Your task to perform on an android device: Open Android settings Image 0: 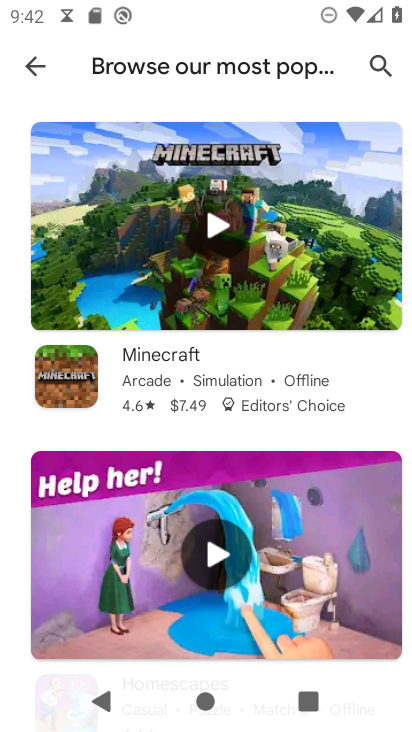
Step 0: press home button
Your task to perform on an android device: Open Android settings Image 1: 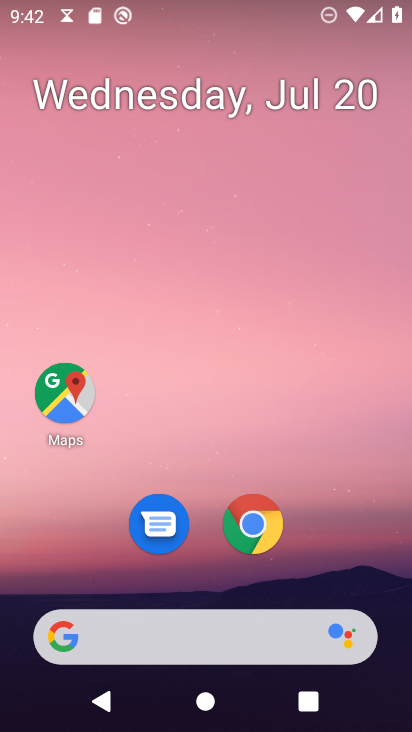
Step 1: drag from (183, 630) to (345, 55)
Your task to perform on an android device: Open Android settings Image 2: 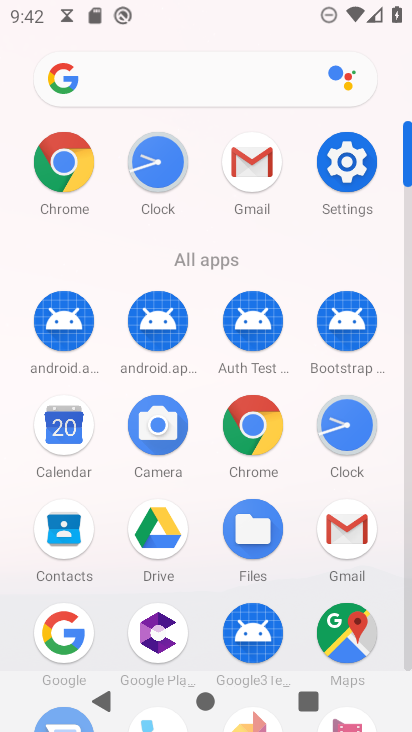
Step 2: click (343, 167)
Your task to perform on an android device: Open Android settings Image 3: 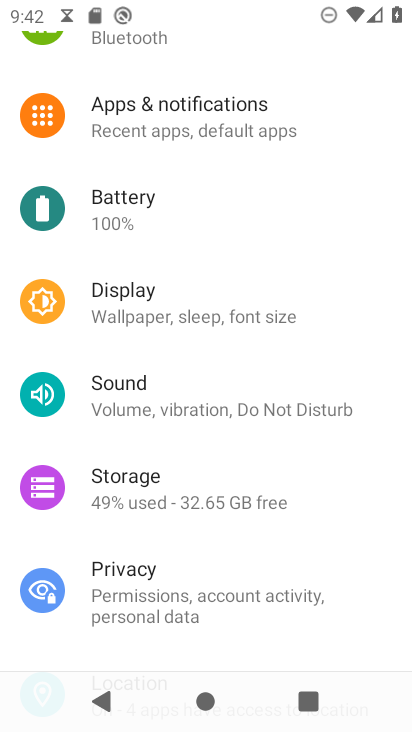
Step 3: task complete